Your task to perform on an android device: set the stopwatch Image 0: 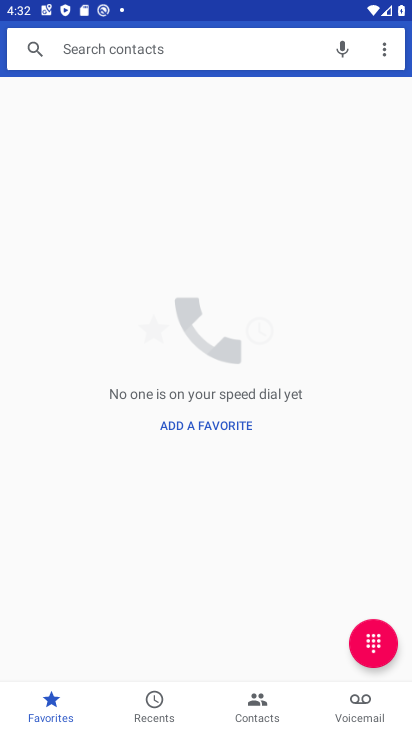
Step 0: press back button
Your task to perform on an android device: set the stopwatch Image 1: 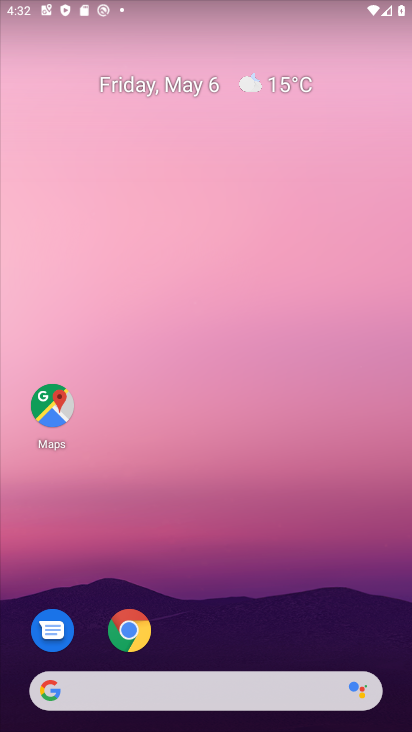
Step 1: drag from (242, 615) to (256, 9)
Your task to perform on an android device: set the stopwatch Image 2: 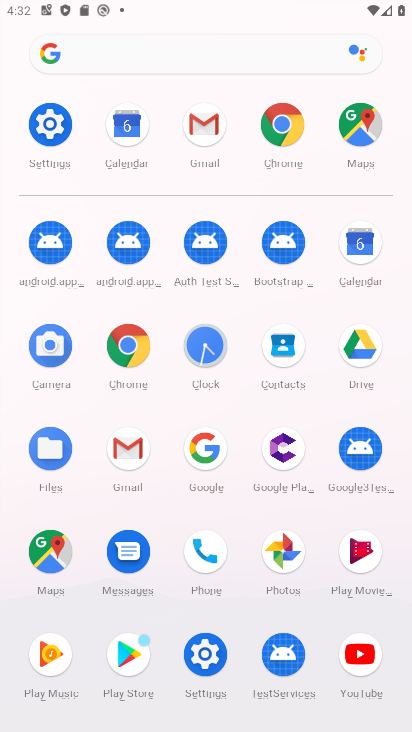
Step 2: click (213, 344)
Your task to perform on an android device: set the stopwatch Image 3: 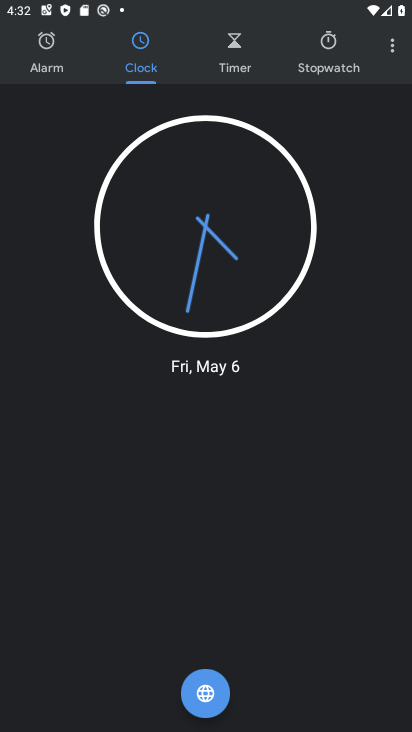
Step 3: click (333, 63)
Your task to perform on an android device: set the stopwatch Image 4: 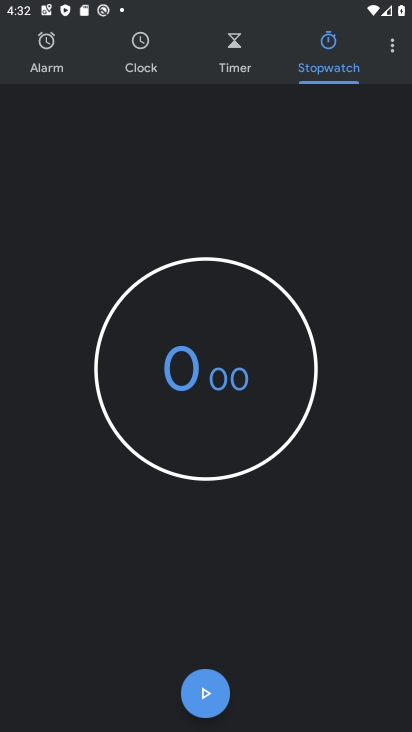
Step 4: click (217, 367)
Your task to perform on an android device: set the stopwatch Image 5: 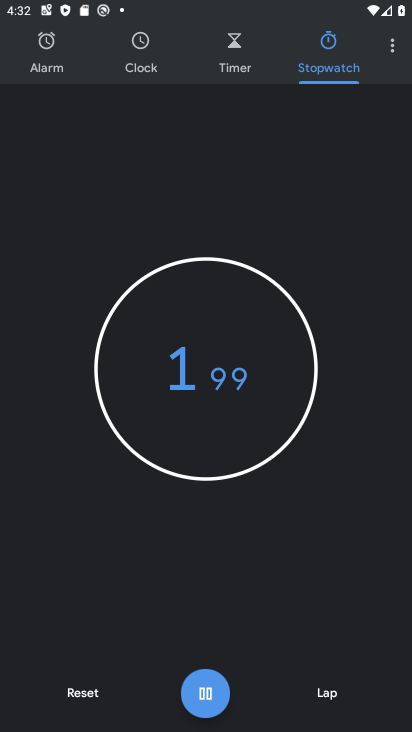
Step 5: click (217, 367)
Your task to perform on an android device: set the stopwatch Image 6: 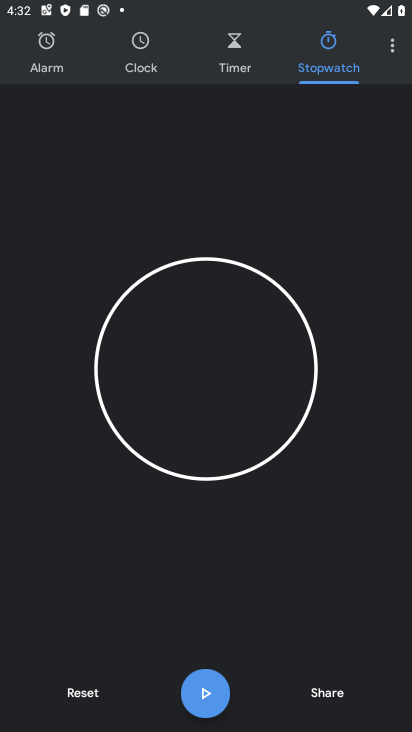
Step 6: task complete